Your task to perform on an android device: Go to wifi settings Image 0: 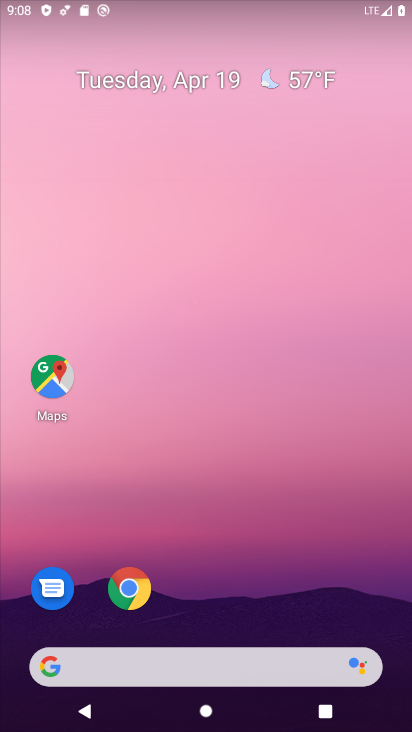
Step 0: drag from (296, 597) to (343, 76)
Your task to perform on an android device: Go to wifi settings Image 1: 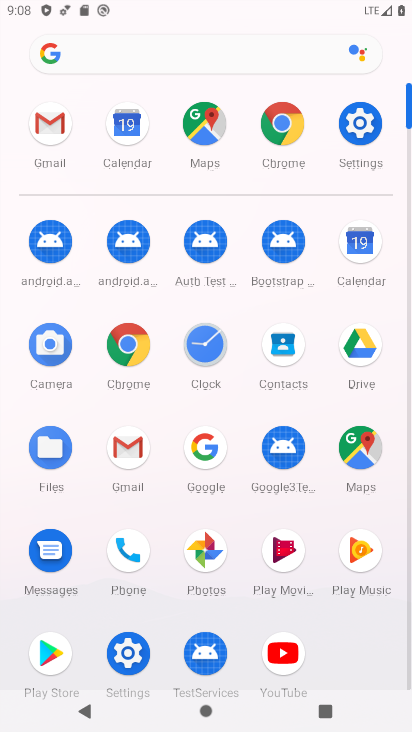
Step 1: click (360, 133)
Your task to perform on an android device: Go to wifi settings Image 2: 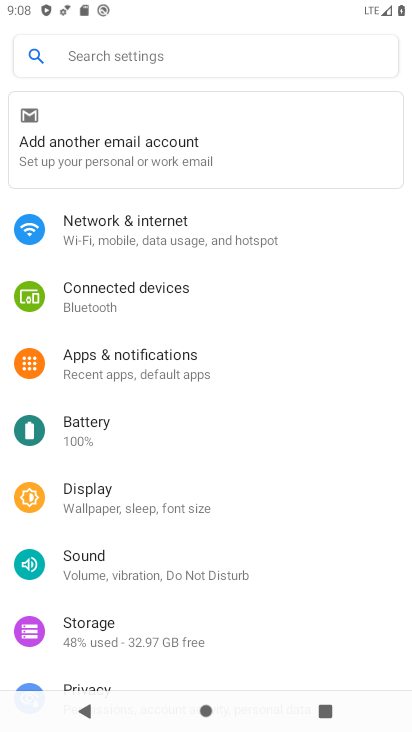
Step 2: click (160, 228)
Your task to perform on an android device: Go to wifi settings Image 3: 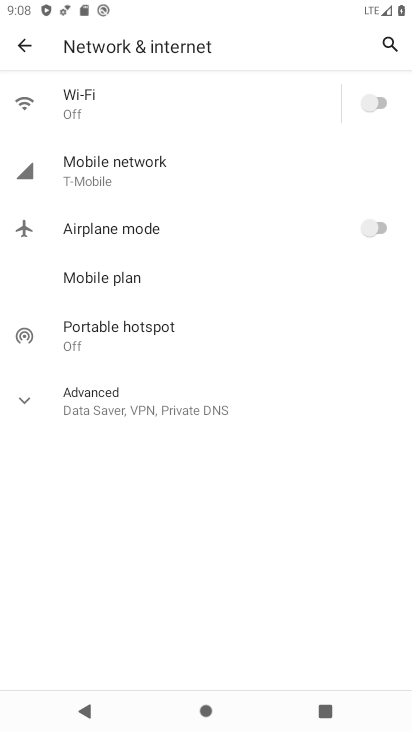
Step 3: click (73, 103)
Your task to perform on an android device: Go to wifi settings Image 4: 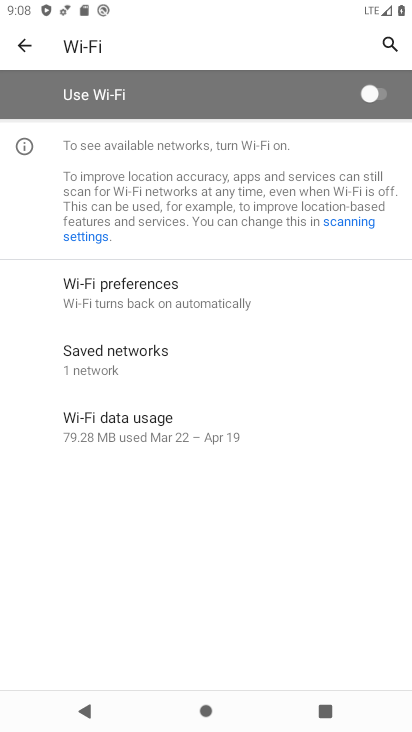
Step 4: task complete